Your task to perform on an android device: Open network settings Image 0: 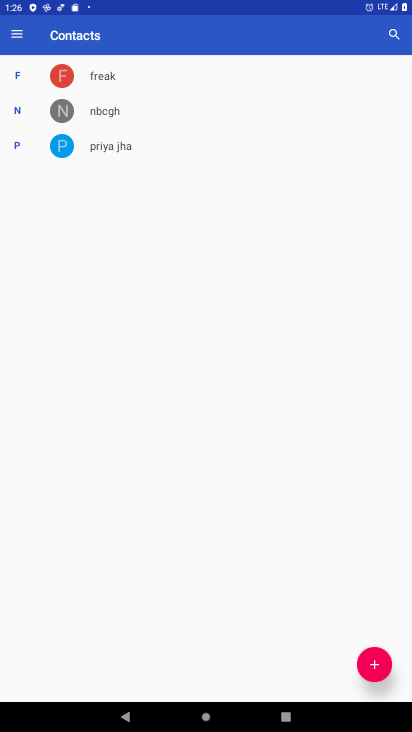
Step 0: press home button
Your task to perform on an android device: Open network settings Image 1: 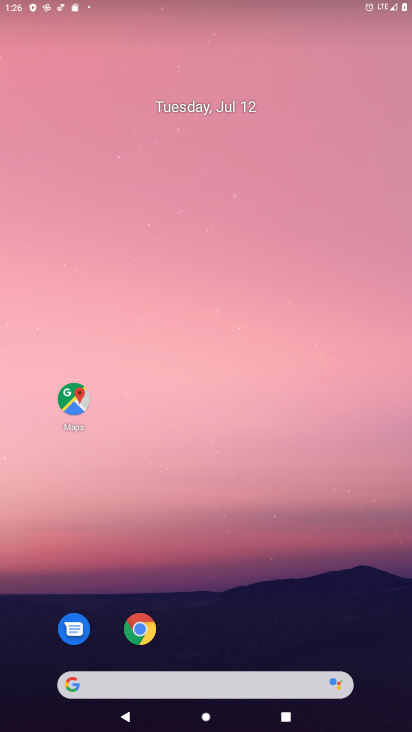
Step 1: drag from (314, 571) to (323, 90)
Your task to perform on an android device: Open network settings Image 2: 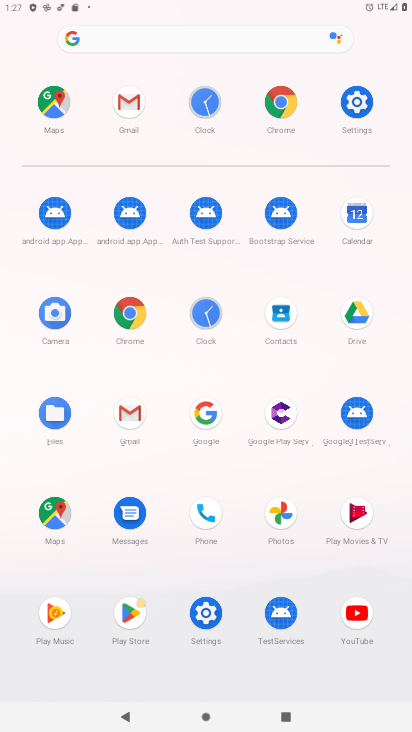
Step 2: click (360, 97)
Your task to perform on an android device: Open network settings Image 3: 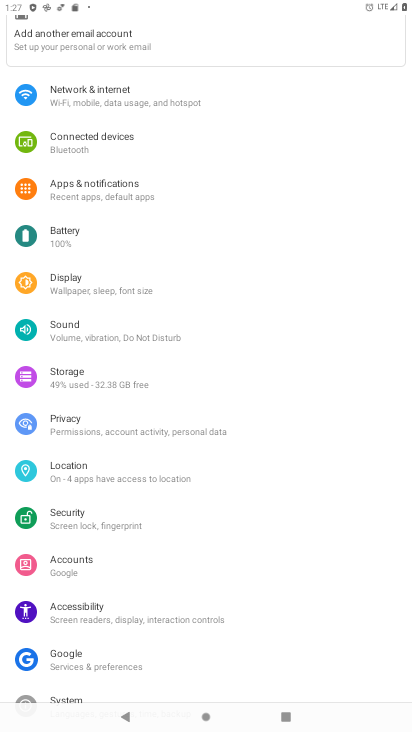
Step 3: click (148, 101)
Your task to perform on an android device: Open network settings Image 4: 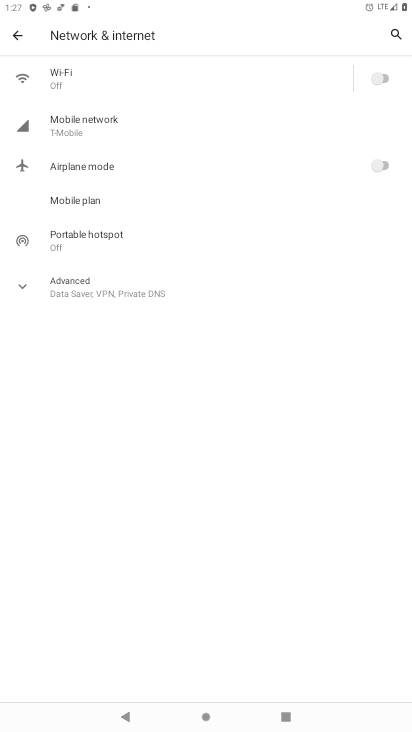
Step 4: click (99, 120)
Your task to perform on an android device: Open network settings Image 5: 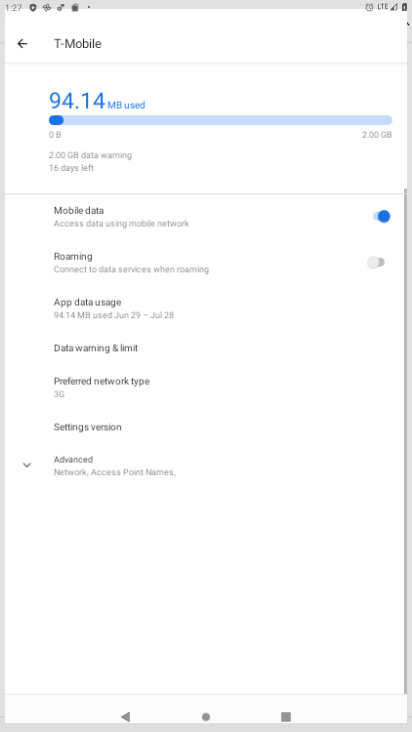
Step 5: task complete